Your task to perform on an android device: turn notification dots on Image 0: 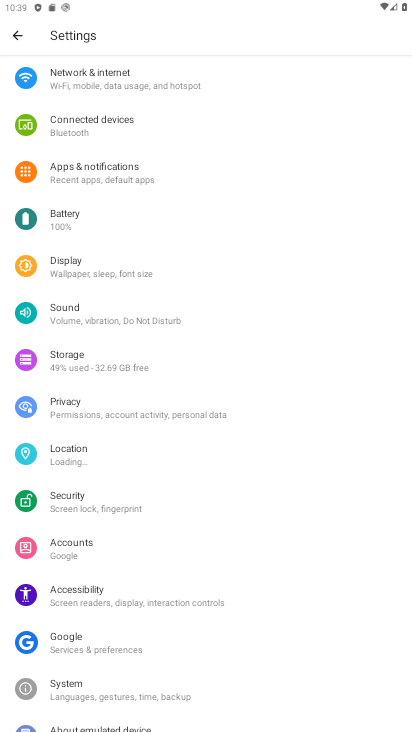
Step 0: click (102, 163)
Your task to perform on an android device: turn notification dots on Image 1: 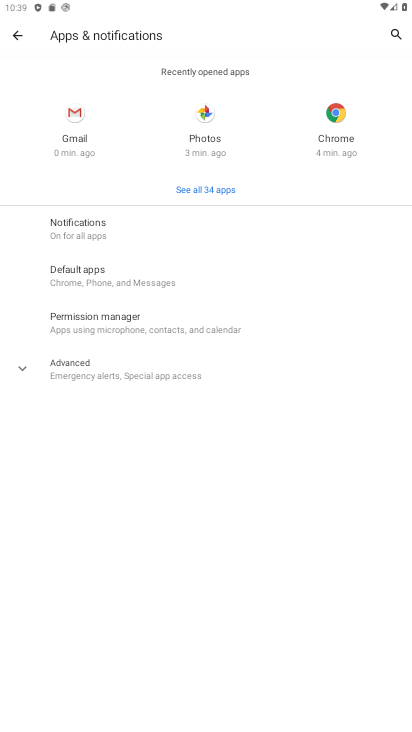
Step 1: click (70, 226)
Your task to perform on an android device: turn notification dots on Image 2: 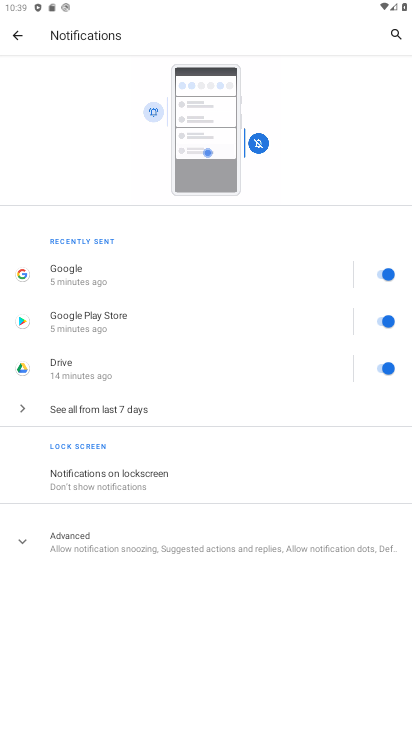
Step 2: click (49, 535)
Your task to perform on an android device: turn notification dots on Image 3: 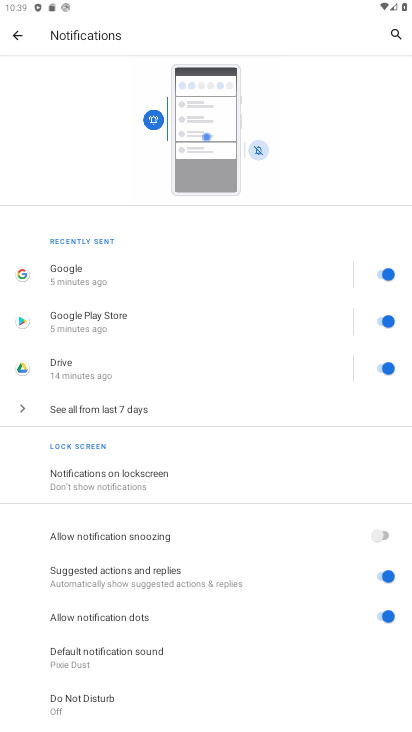
Step 3: task complete